Your task to perform on an android device: clear history in the chrome app Image 0: 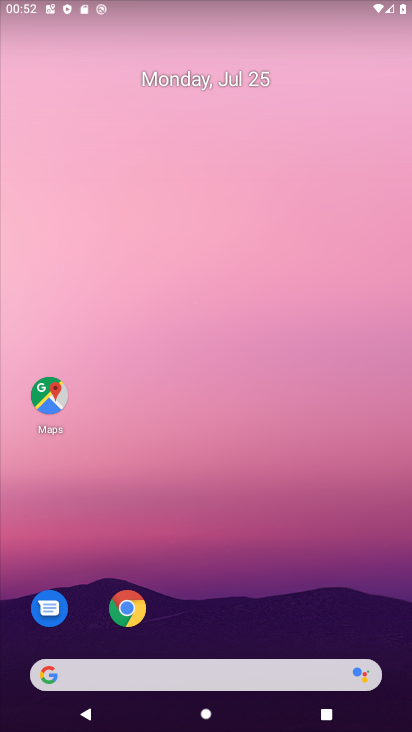
Step 0: drag from (206, 644) to (188, 21)
Your task to perform on an android device: clear history in the chrome app Image 1: 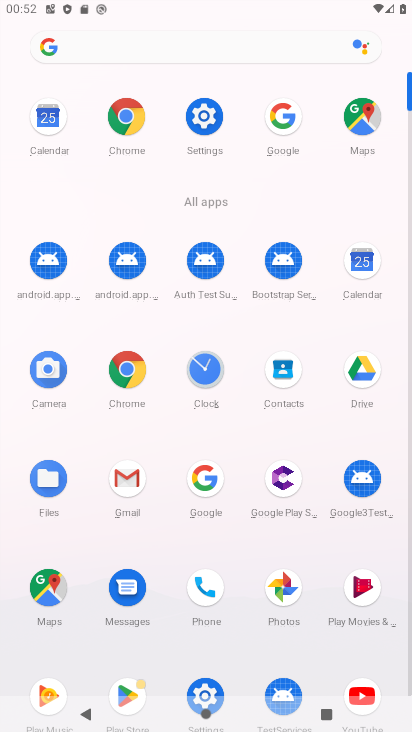
Step 1: click (130, 365)
Your task to perform on an android device: clear history in the chrome app Image 2: 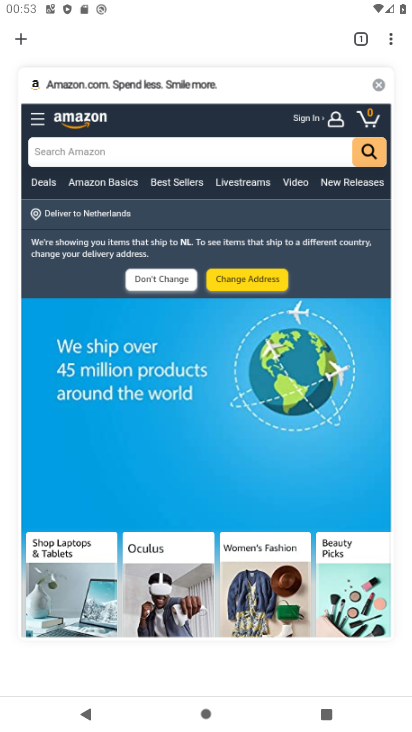
Step 2: click (388, 35)
Your task to perform on an android device: clear history in the chrome app Image 3: 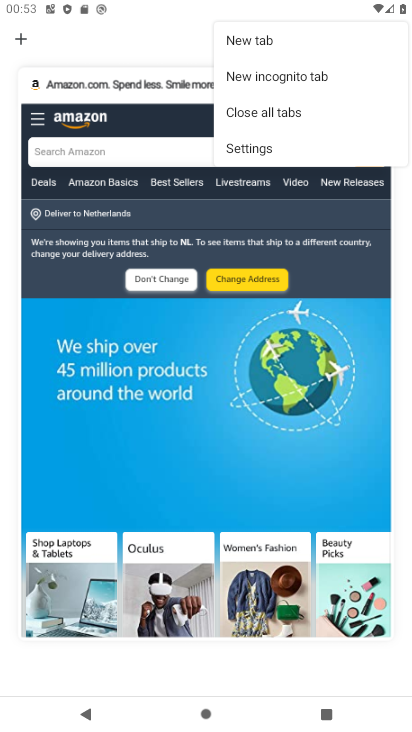
Step 3: click (239, 151)
Your task to perform on an android device: clear history in the chrome app Image 4: 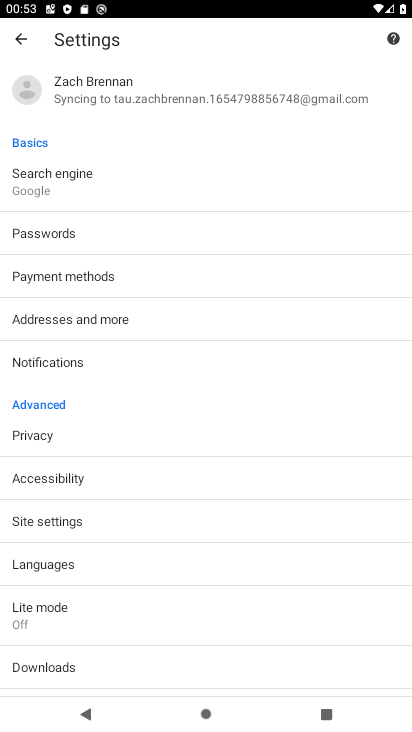
Step 4: drag from (219, 505) to (194, 8)
Your task to perform on an android device: clear history in the chrome app Image 5: 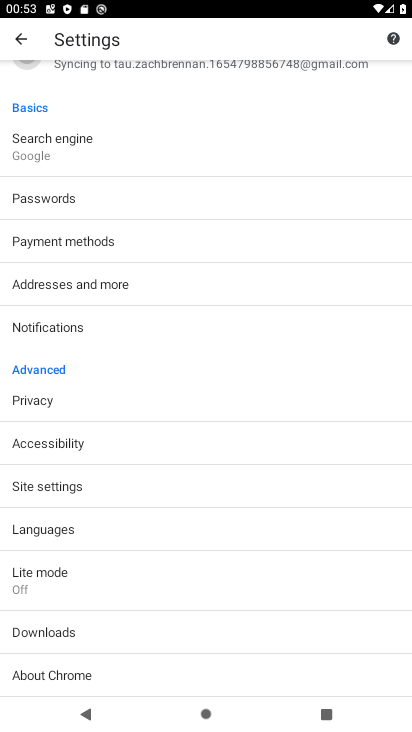
Step 5: click (46, 406)
Your task to perform on an android device: clear history in the chrome app Image 6: 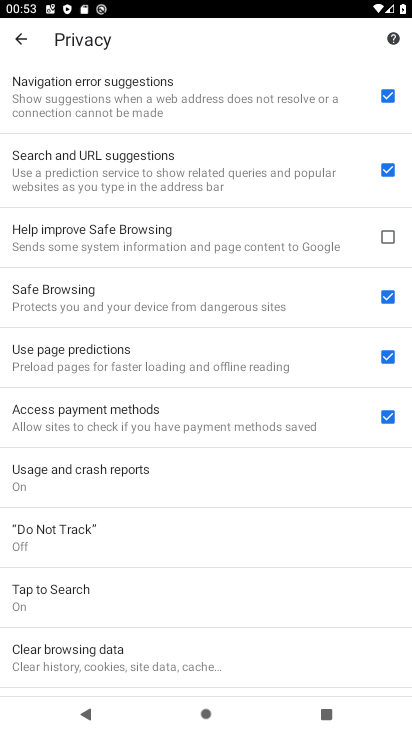
Step 6: click (120, 647)
Your task to perform on an android device: clear history in the chrome app Image 7: 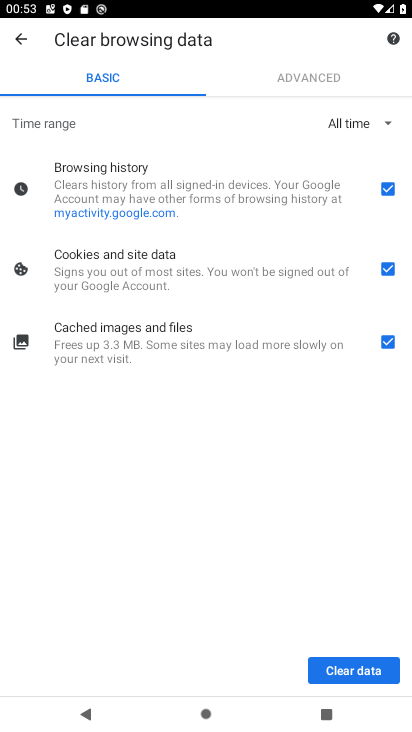
Step 7: click (314, 673)
Your task to perform on an android device: clear history in the chrome app Image 8: 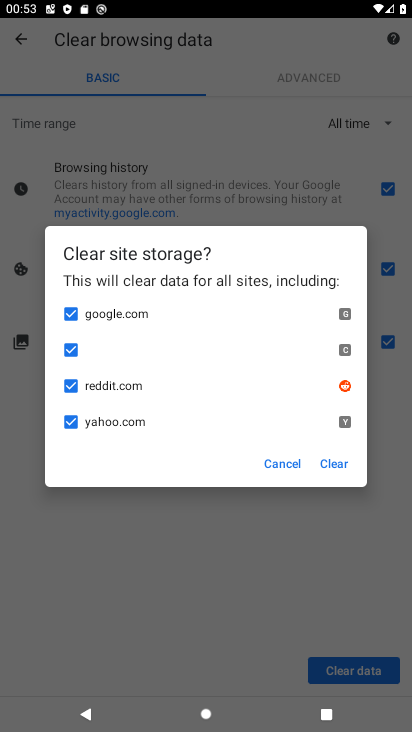
Step 8: click (330, 468)
Your task to perform on an android device: clear history in the chrome app Image 9: 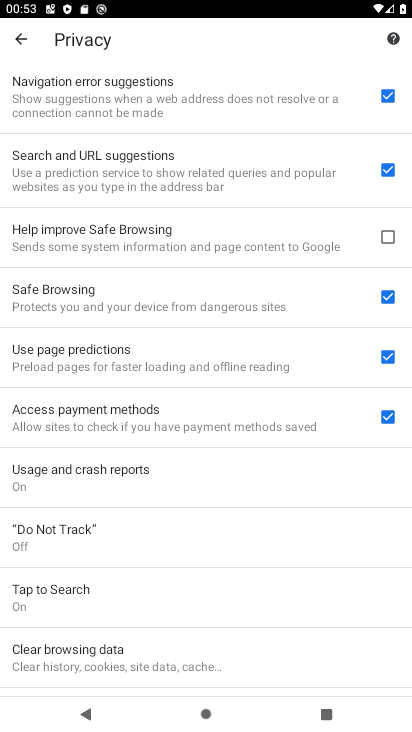
Step 9: task complete